Your task to perform on an android device: set the stopwatch Image 0: 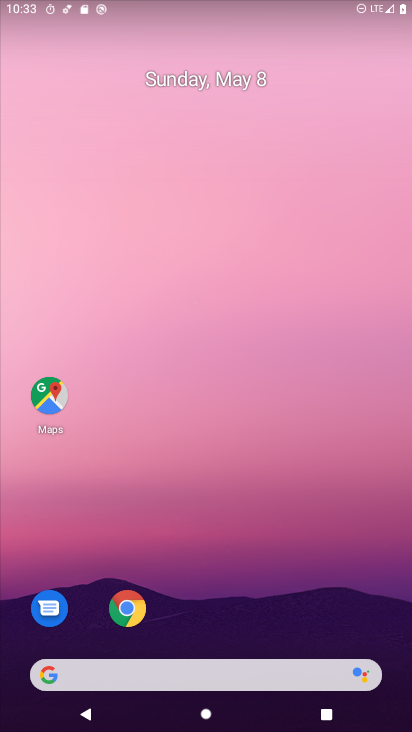
Step 0: drag from (196, 637) to (262, 165)
Your task to perform on an android device: set the stopwatch Image 1: 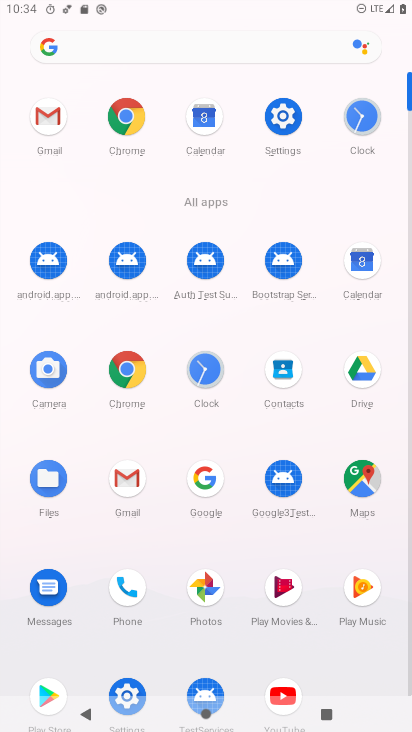
Step 1: click (205, 368)
Your task to perform on an android device: set the stopwatch Image 2: 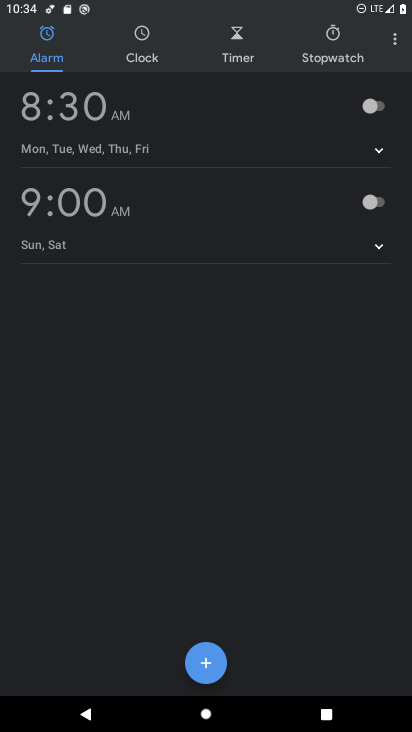
Step 2: click (300, 56)
Your task to perform on an android device: set the stopwatch Image 3: 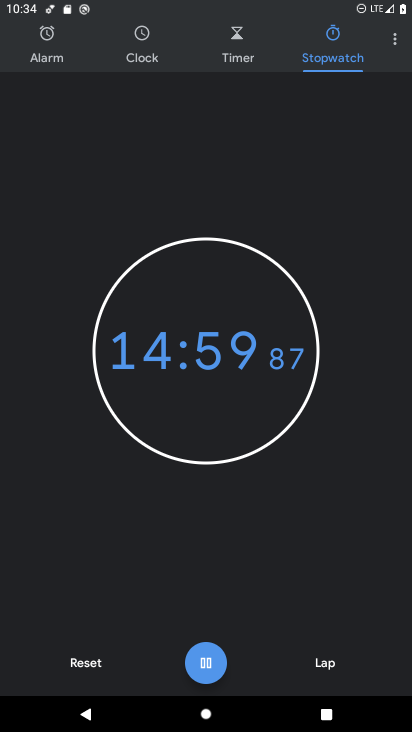
Step 3: task complete